Your task to perform on an android device: check out phone information Image 0: 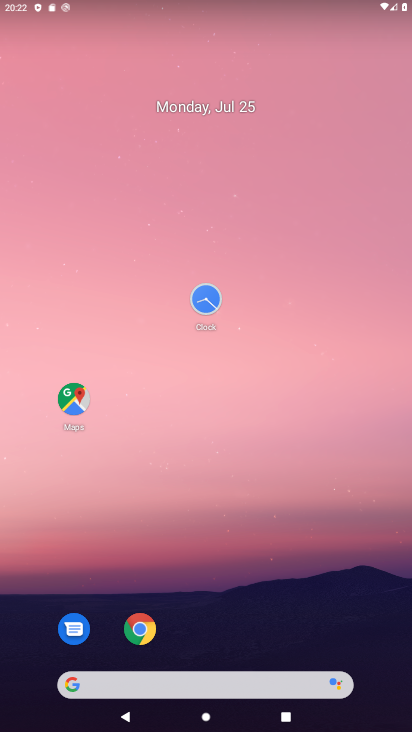
Step 0: drag from (213, 589) to (238, 398)
Your task to perform on an android device: check out phone information Image 1: 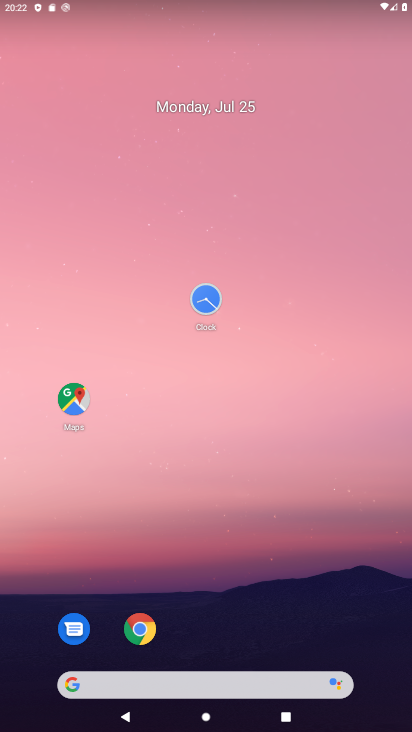
Step 1: drag from (192, 643) to (227, 134)
Your task to perform on an android device: check out phone information Image 2: 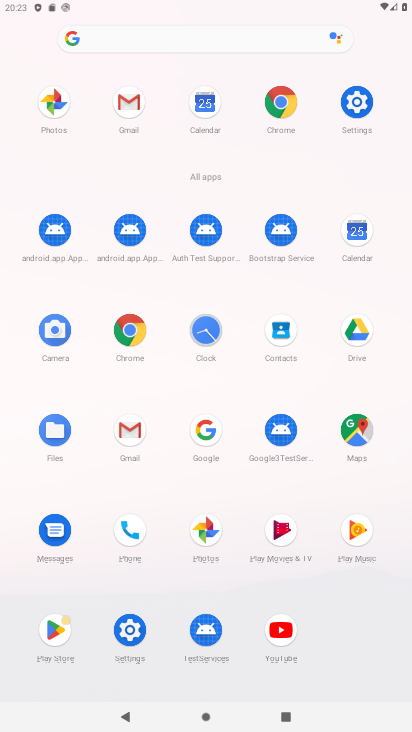
Step 2: click (121, 648)
Your task to perform on an android device: check out phone information Image 3: 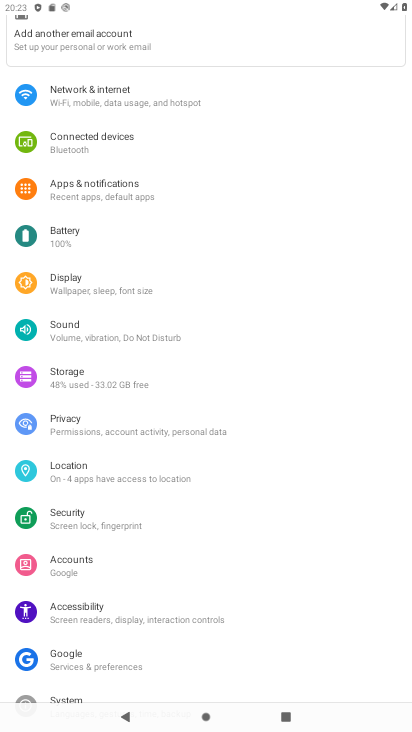
Step 3: drag from (181, 614) to (184, 347)
Your task to perform on an android device: check out phone information Image 4: 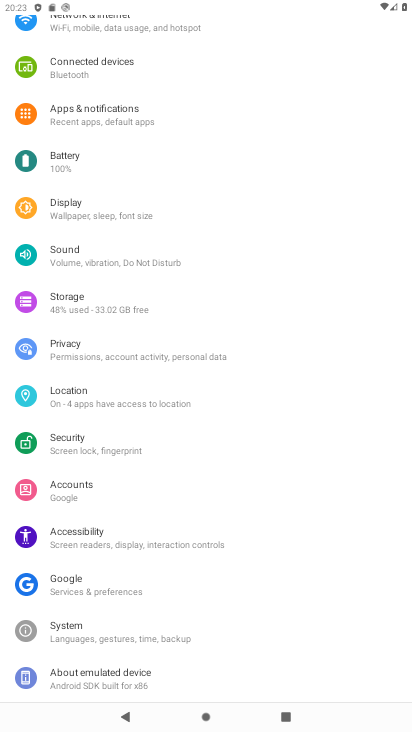
Step 4: click (106, 671)
Your task to perform on an android device: check out phone information Image 5: 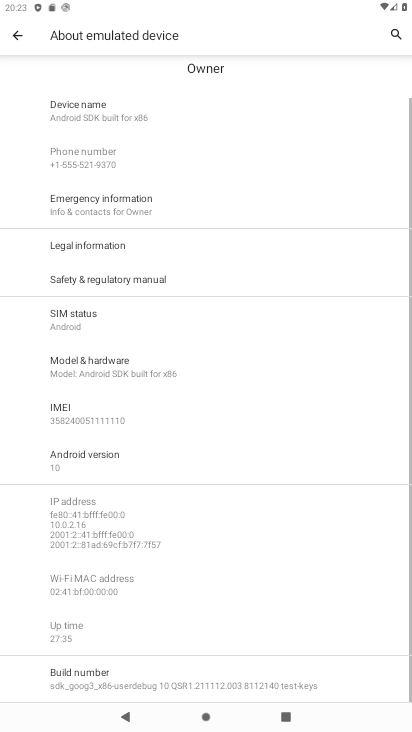
Step 5: task complete